Your task to perform on an android device: visit the assistant section in the google photos Image 0: 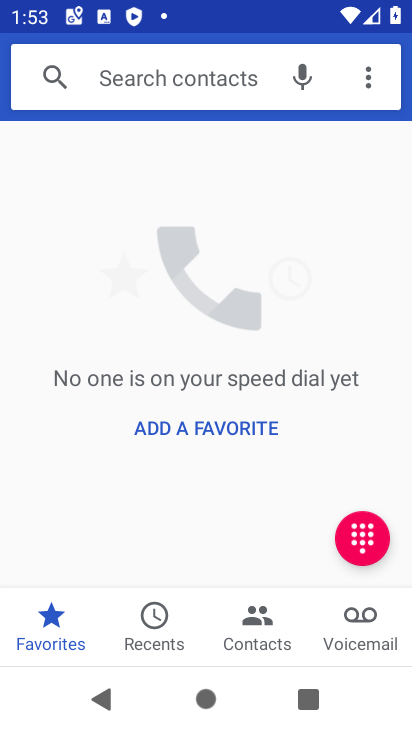
Step 0: press home button
Your task to perform on an android device: visit the assistant section in the google photos Image 1: 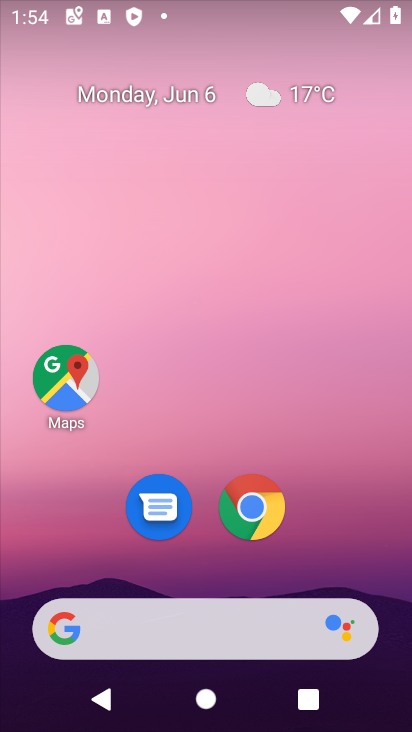
Step 1: drag from (210, 418) to (254, 9)
Your task to perform on an android device: visit the assistant section in the google photos Image 2: 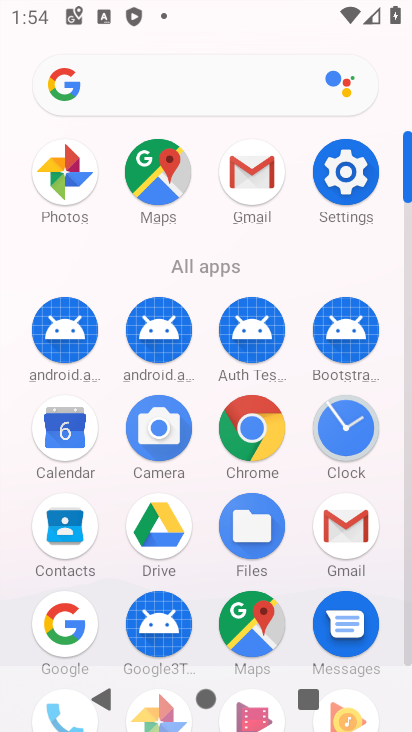
Step 2: click (64, 179)
Your task to perform on an android device: visit the assistant section in the google photos Image 3: 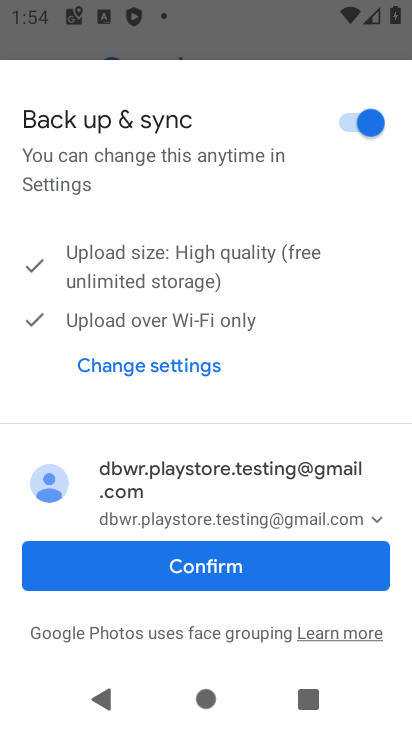
Step 3: click (261, 561)
Your task to perform on an android device: visit the assistant section in the google photos Image 4: 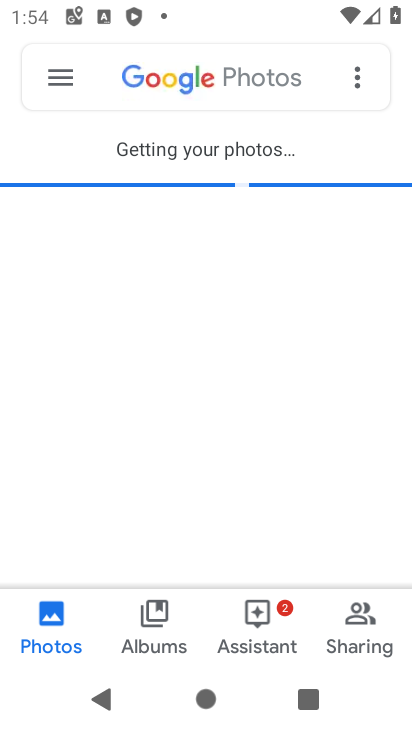
Step 4: click (249, 621)
Your task to perform on an android device: visit the assistant section in the google photos Image 5: 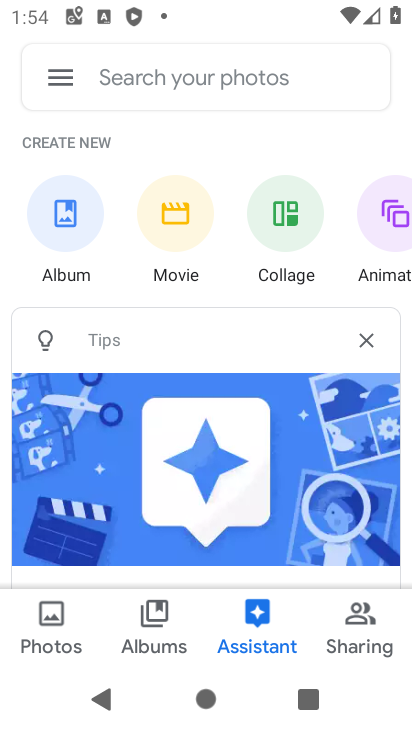
Step 5: task complete